Your task to perform on an android device: Open Amazon Image 0: 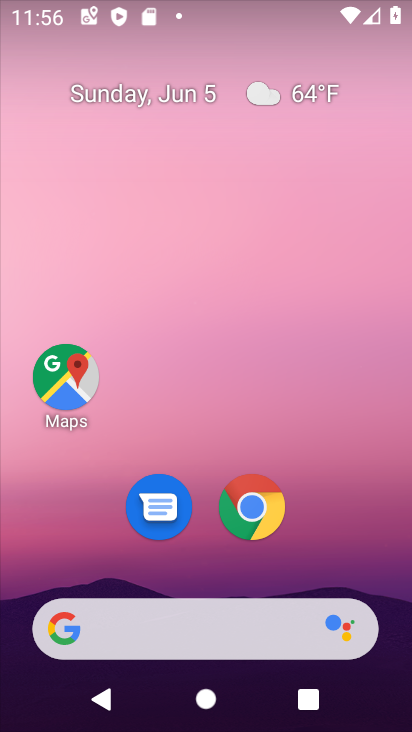
Step 0: click (254, 508)
Your task to perform on an android device: Open Amazon Image 1: 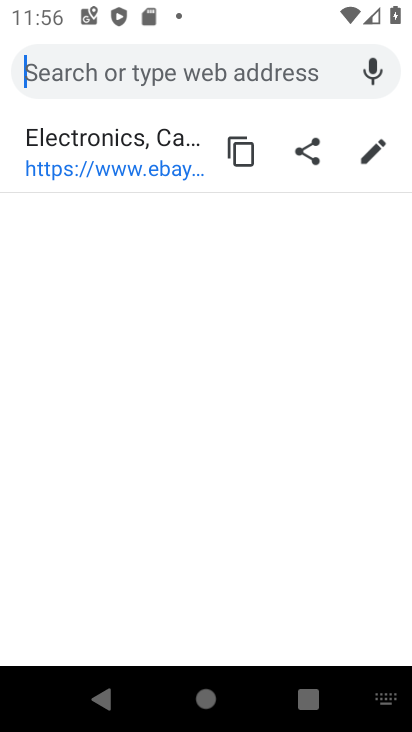
Step 1: type "amazon"
Your task to perform on an android device: Open Amazon Image 2: 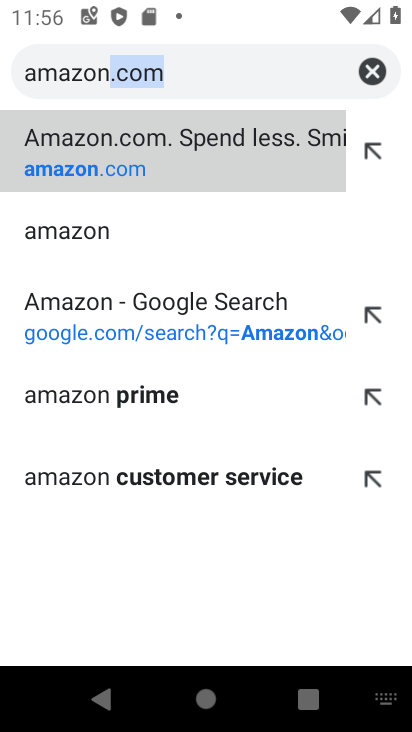
Step 2: click (112, 174)
Your task to perform on an android device: Open Amazon Image 3: 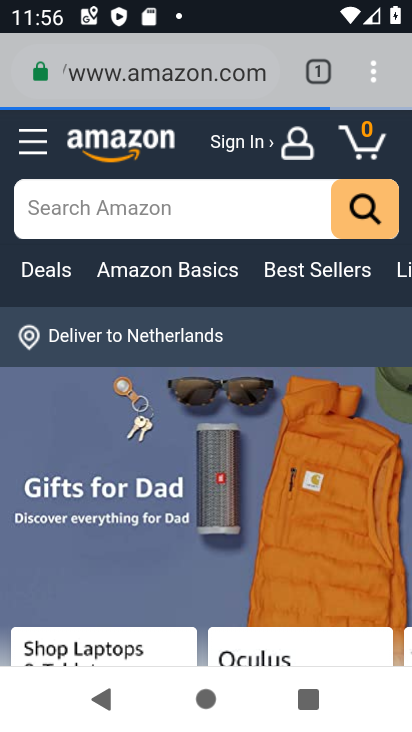
Step 3: task complete